Your task to perform on an android device: Go to CNN.com Image 0: 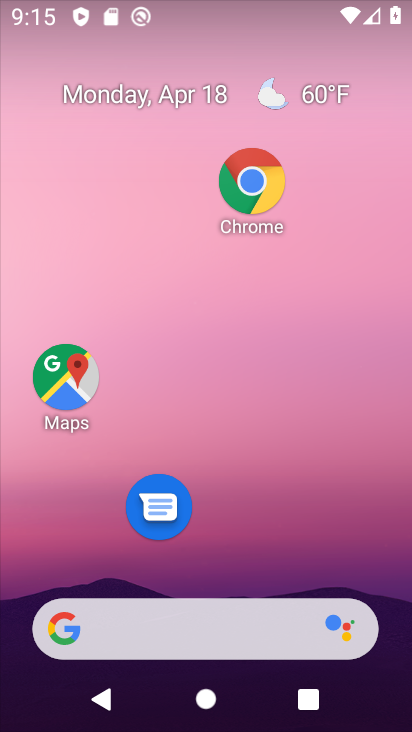
Step 0: click (262, 202)
Your task to perform on an android device: Go to CNN.com Image 1: 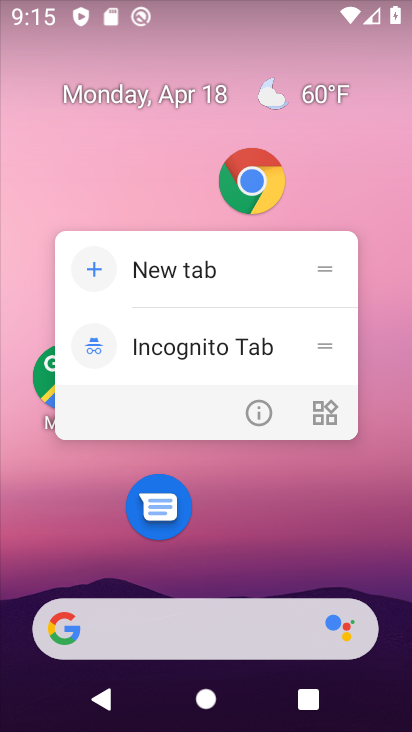
Step 1: click (247, 181)
Your task to perform on an android device: Go to CNN.com Image 2: 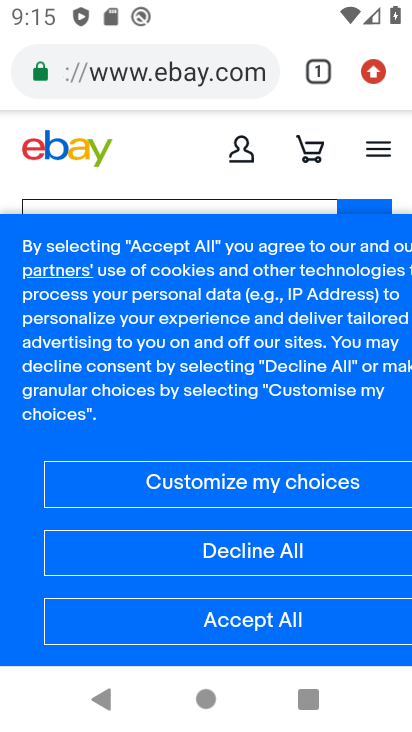
Step 2: click (201, 64)
Your task to perform on an android device: Go to CNN.com Image 3: 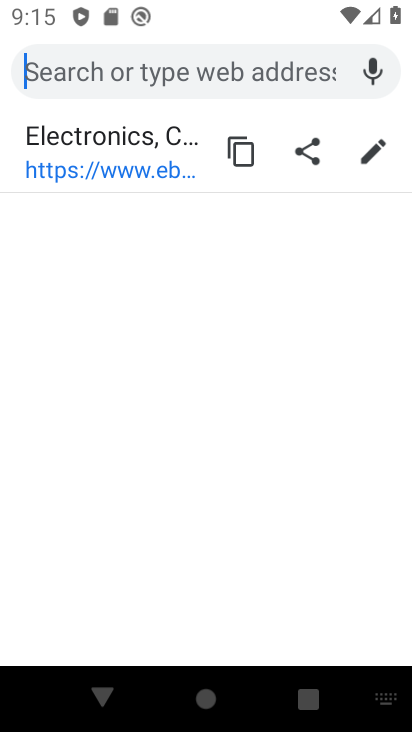
Step 3: type "cnn.com"
Your task to perform on an android device: Go to CNN.com Image 4: 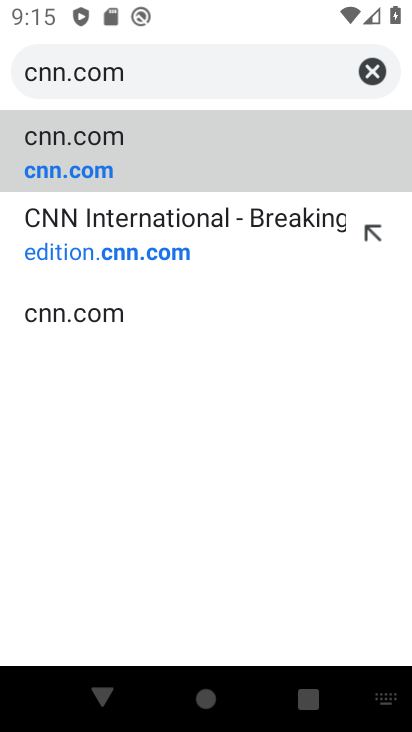
Step 4: click (135, 165)
Your task to perform on an android device: Go to CNN.com Image 5: 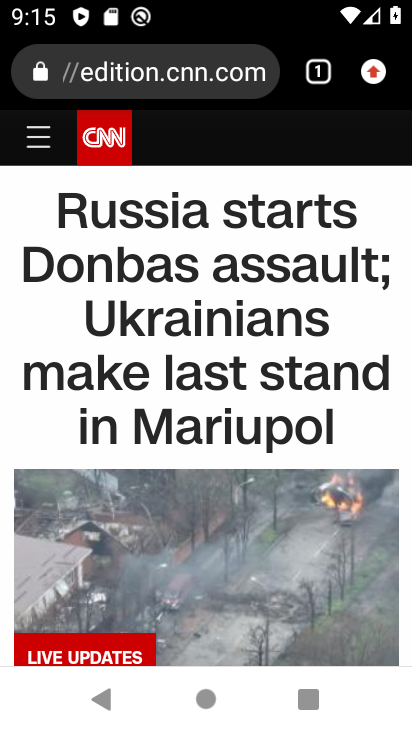
Step 5: task complete